Your task to perform on an android device: read, delete, or share a saved page in the chrome app Image 0: 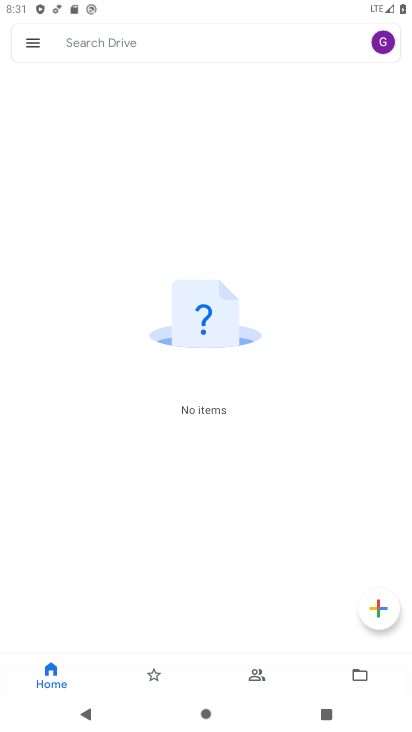
Step 0: press home button
Your task to perform on an android device: read, delete, or share a saved page in the chrome app Image 1: 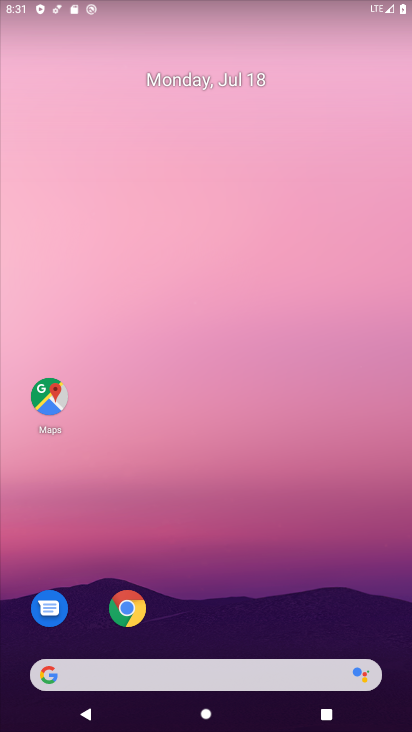
Step 1: drag from (228, 624) to (188, 122)
Your task to perform on an android device: read, delete, or share a saved page in the chrome app Image 2: 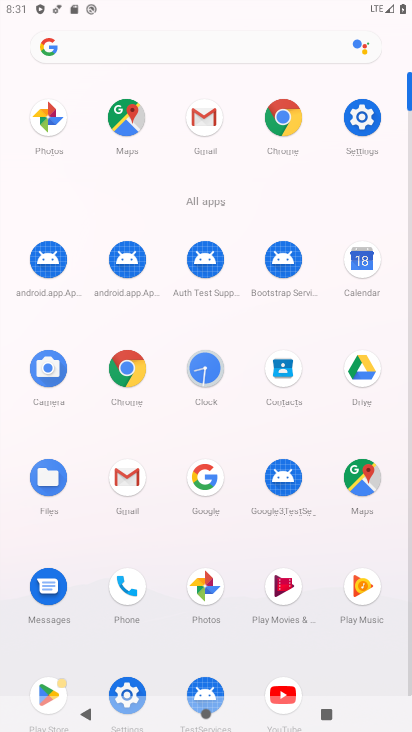
Step 2: click (297, 114)
Your task to perform on an android device: read, delete, or share a saved page in the chrome app Image 3: 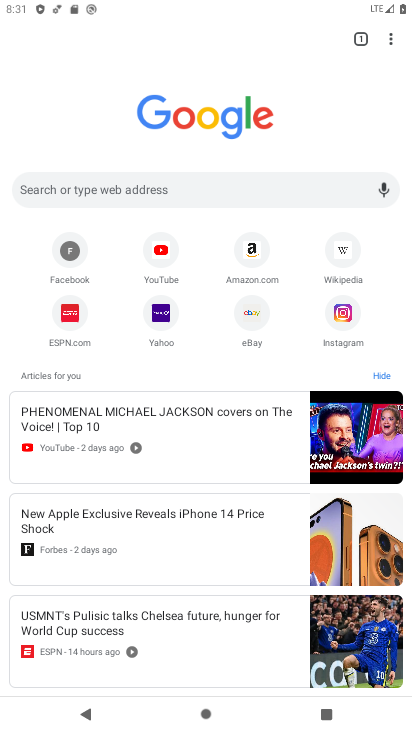
Step 3: click (386, 49)
Your task to perform on an android device: read, delete, or share a saved page in the chrome app Image 4: 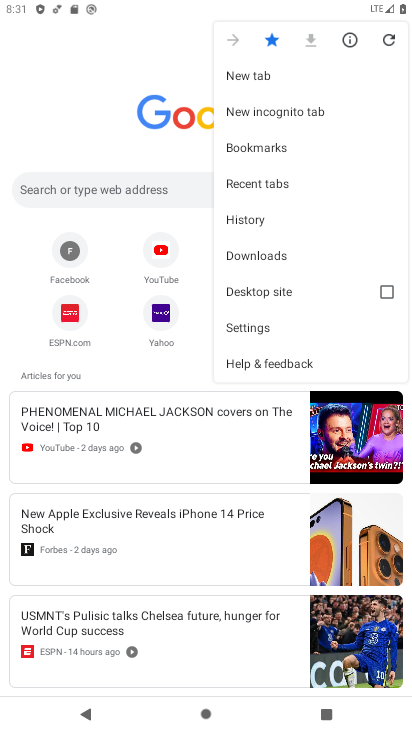
Step 4: click (278, 250)
Your task to perform on an android device: read, delete, or share a saved page in the chrome app Image 5: 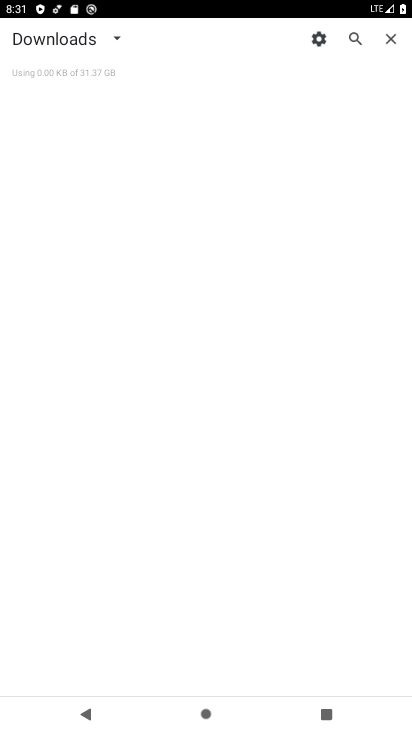
Step 5: click (104, 41)
Your task to perform on an android device: read, delete, or share a saved page in the chrome app Image 6: 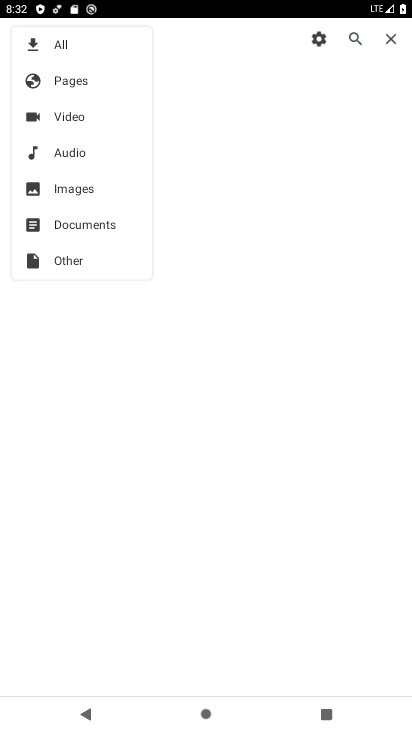
Step 6: click (93, 78)
Your task to perform on an android device: read, delete, or share a saved page in the chrome app Image 7: 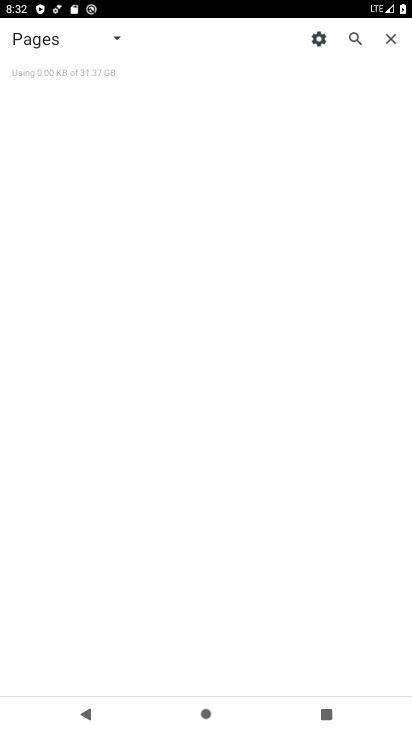
Step 7: task complete